Your task to perform on an android device: Turn on the flashlight Image 0: 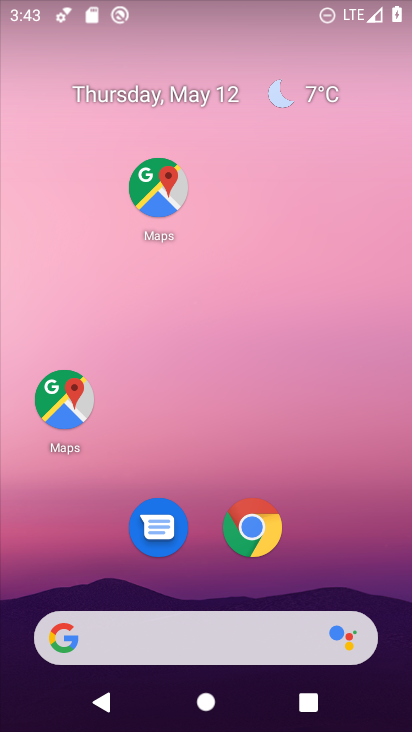
Step 0: drag from (227, 620) to (196, 17)
Your task to perform on an android device: Turn on the flashlight Image 1: 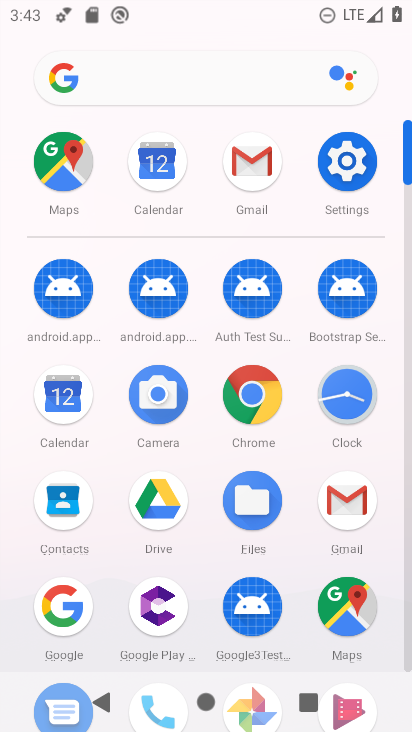
Step 1: click (333, 168)
Your task to perform on an android device: Turn on the flashlight Image 2: 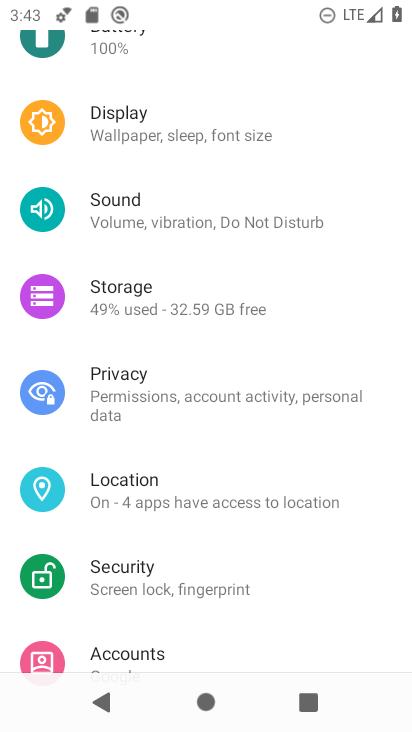
Step 2: drag from (199, 158) to (214, 620)
Your task to perform on an android device: Turn on the flashlight Image 3: 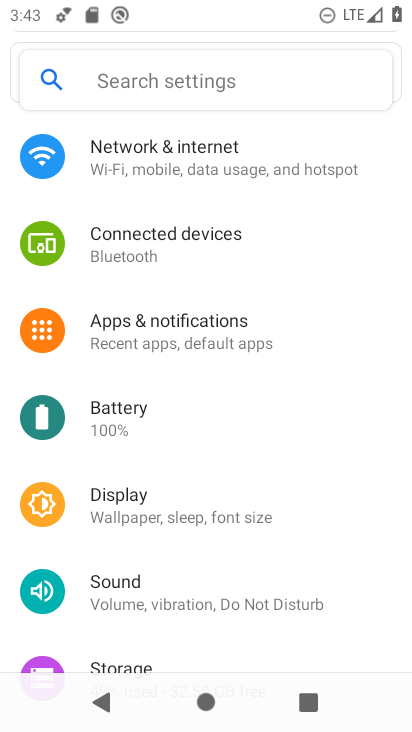
Step 3: click (149, 100)
Your task to perform on an android device: Turn on the flashlight Image 4: 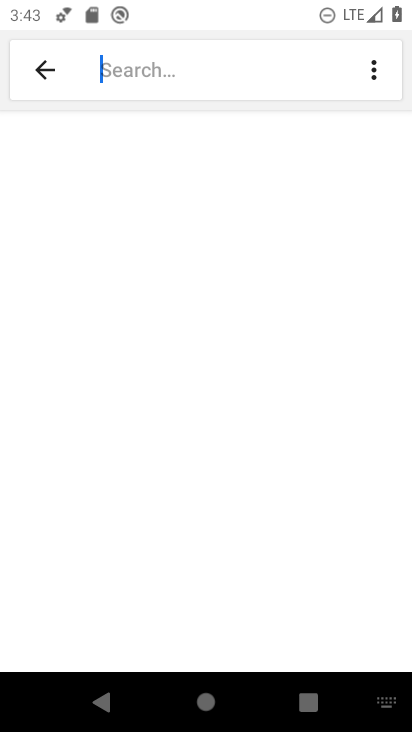
Step 4: type "flashlight"
Your task to perform on an android device: Turn on the flashlight Image 5: 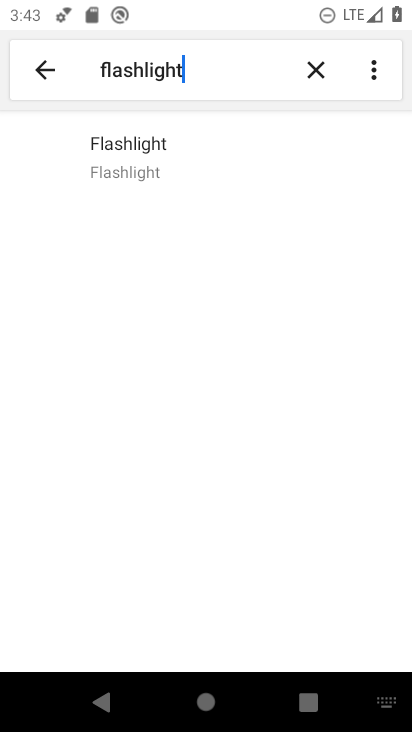
Step 5: task complete